Your task to perform on an android device: turn on showing notifications on the lock screen Image 0: 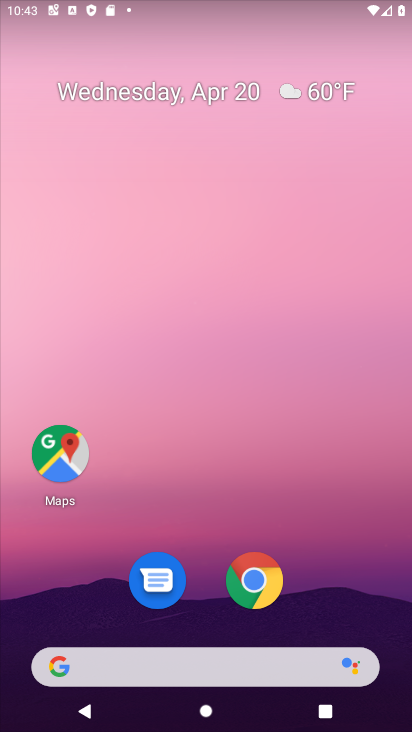
Step 0: drag from (172, 665) to (157, 123)
Your task to perform on an android device: turn on showing notifications on the lock screen Image 1: 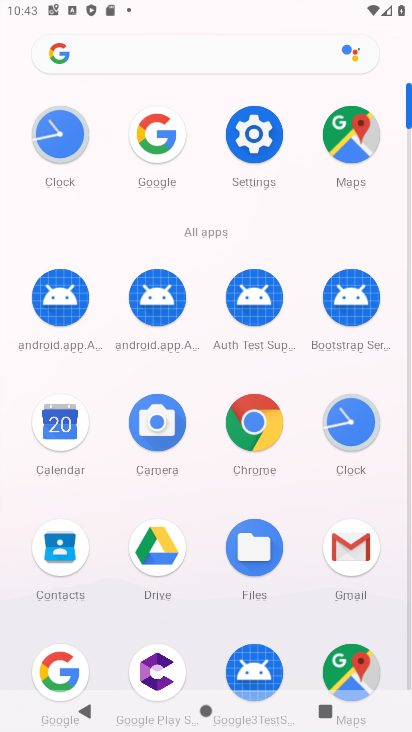
Step 1: click (250, 134)
Your task to perform on an android device: turn on showing notifications on the lock screen Image 2: 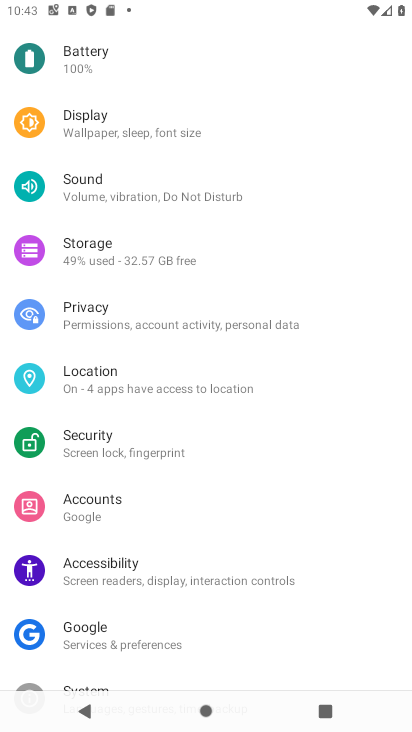
Step 2: drag from (113, 85) to (140, 607)
Your task to perform on an android device: turn on showing notifications on the lock screen Image 3: 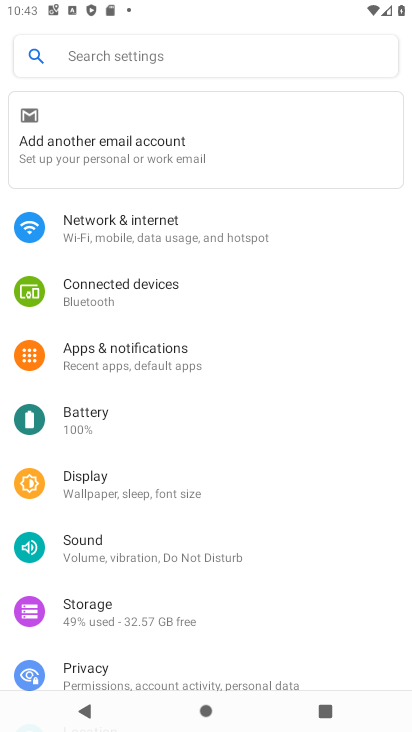
Step 3: click (122, 359)
Your task to perform on an android device: turn on showing notifications on the lock screen Image 4: 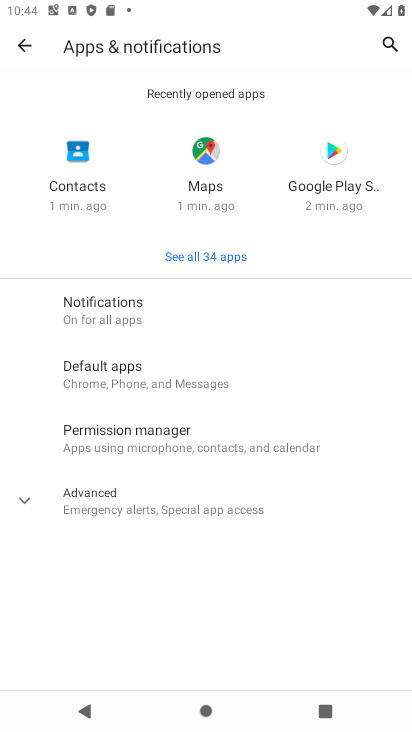
Step 4: click (119, 300)
Your task to perform on an android device: turn on showing notifications on the lock screen Image 5: 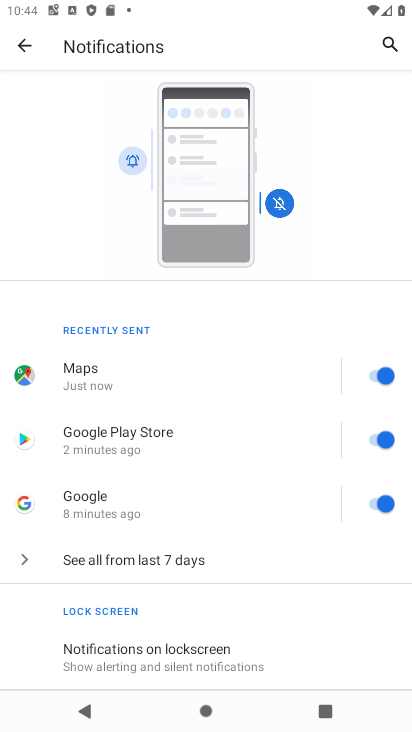
Step 5: drag from (183, 582) to (165, 217)
Your task to perform on an android device: turn on showing notifications on the lock screen Image 6: 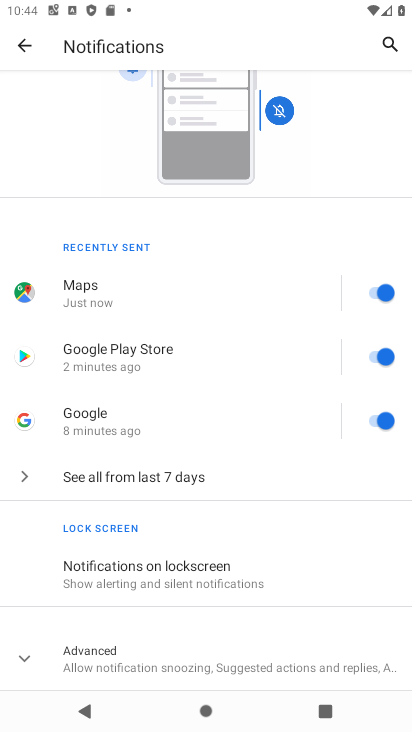
Step 6: click (124, 567)
Your task to perform on an android device: turn on showing notifications on the lock screen Image 7: 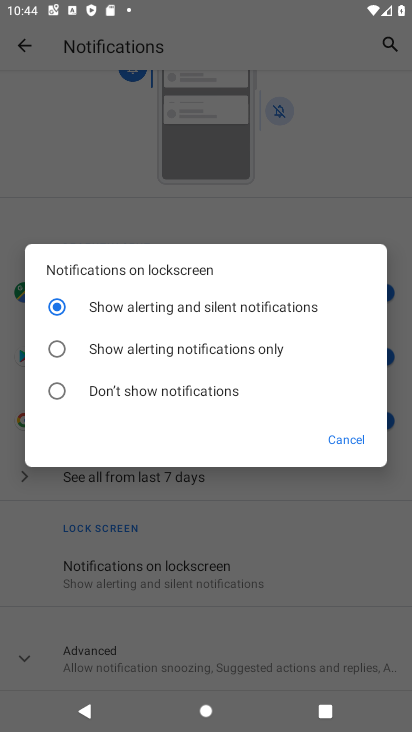
Step 7: click (132, 310)
Your task to perform on an android device: turn on showing notifications on the lock screen Image 8: 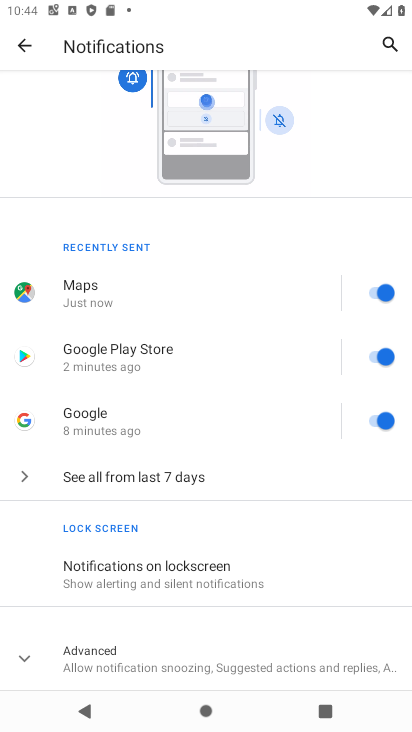
Step 8: task complete